Your task to perform on an android device: install app "PlayWell" Image 0: 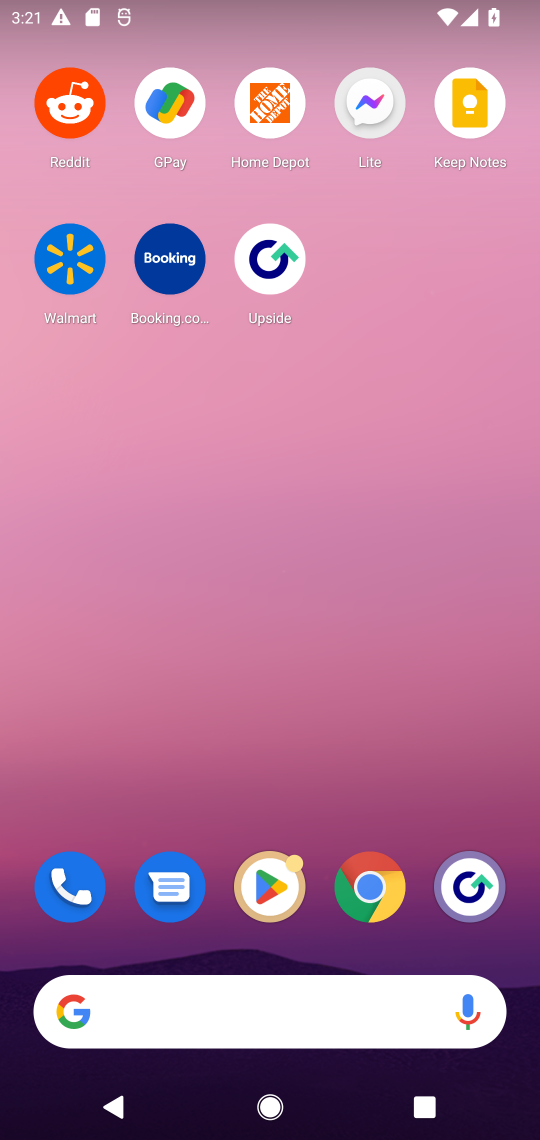
Step 0: press home button
Your task to perform on an android device: install app "PlayWell" Image 1: 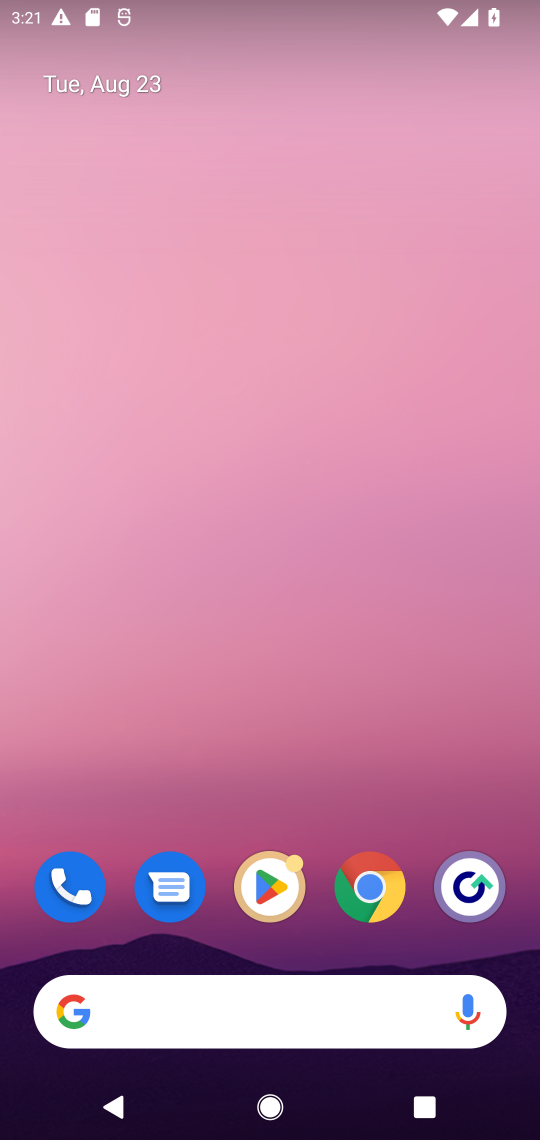
Step 1: click (280, 877)
Your task to perform on an android device: install app "PlayWell" Image 2: 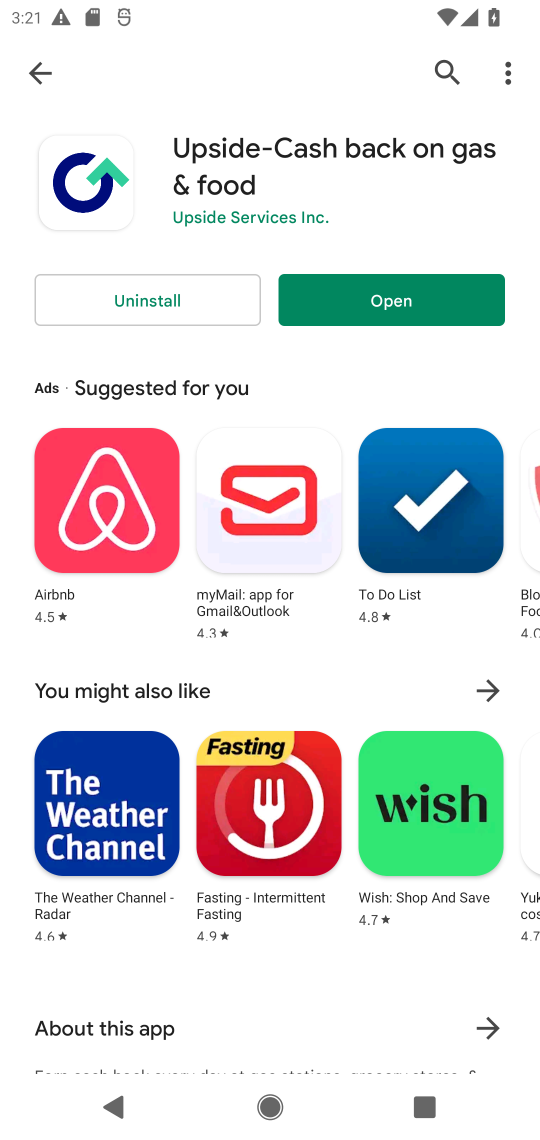
Step 2: click (31, 74)
Your task to perform on an android device: install app "PlayWell" Image 3: 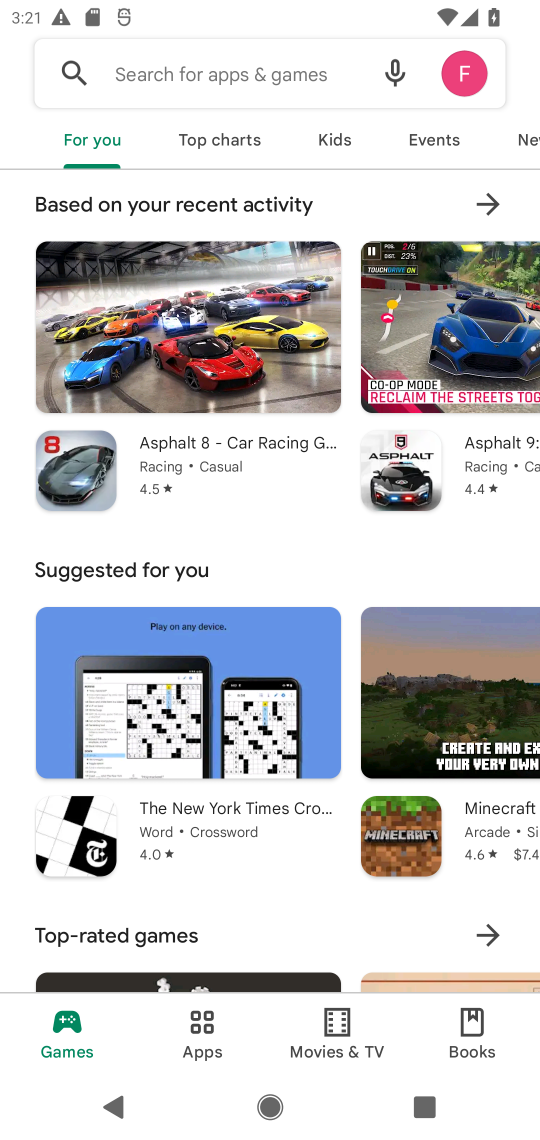
Step 3: click (184, 67)
Your task to perform on an android device: install app "PlayWell" Image 4: 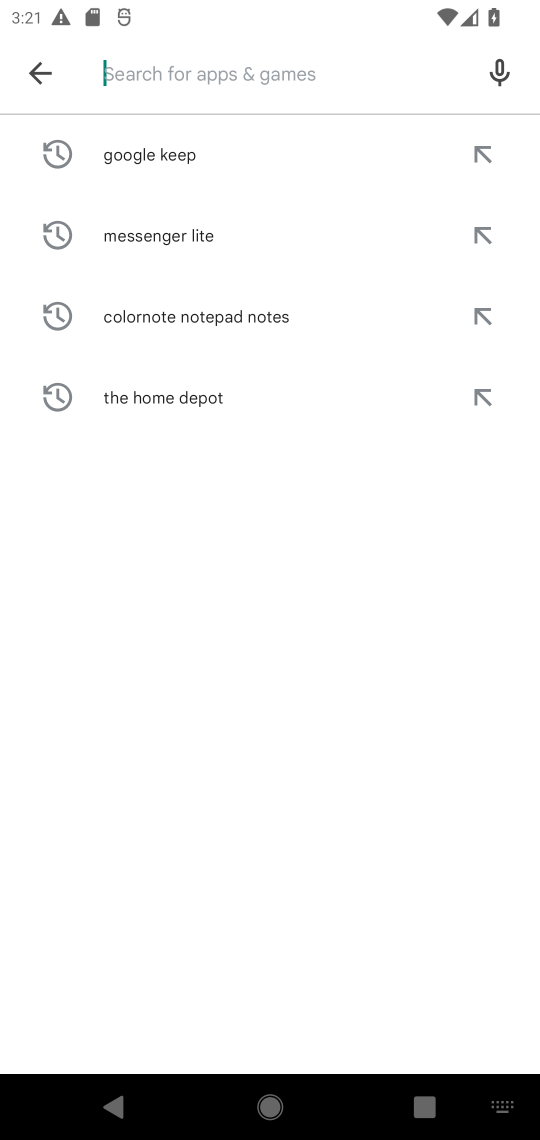
Step 4: type "PlayWell"
Your task to perform on an android device: install app "PlayWell" Image 5: 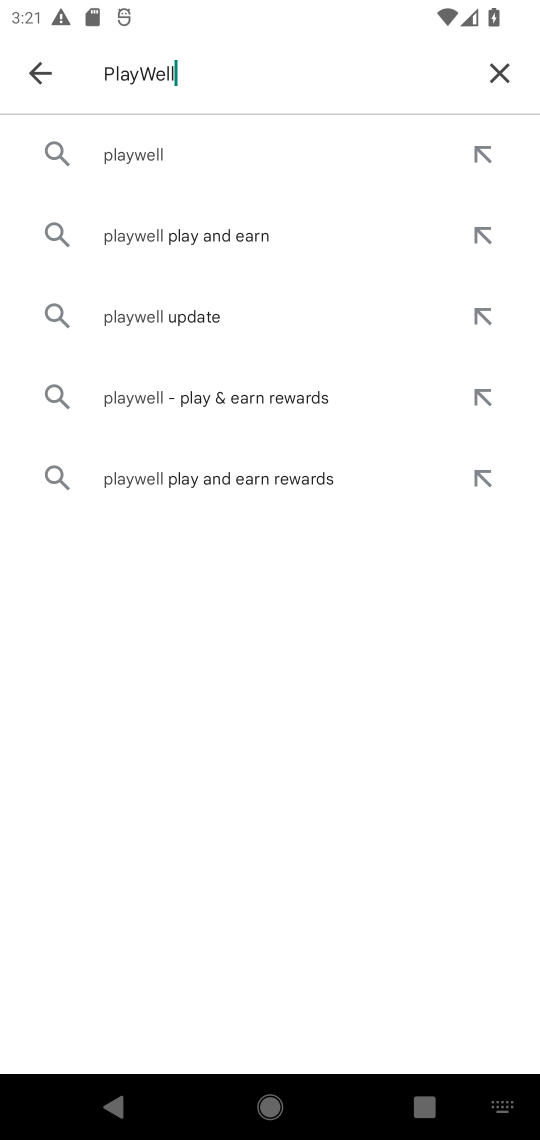
Step 5: click (141, 151)
Your task to perform on an android device: install app "PlayWell" Image 6: 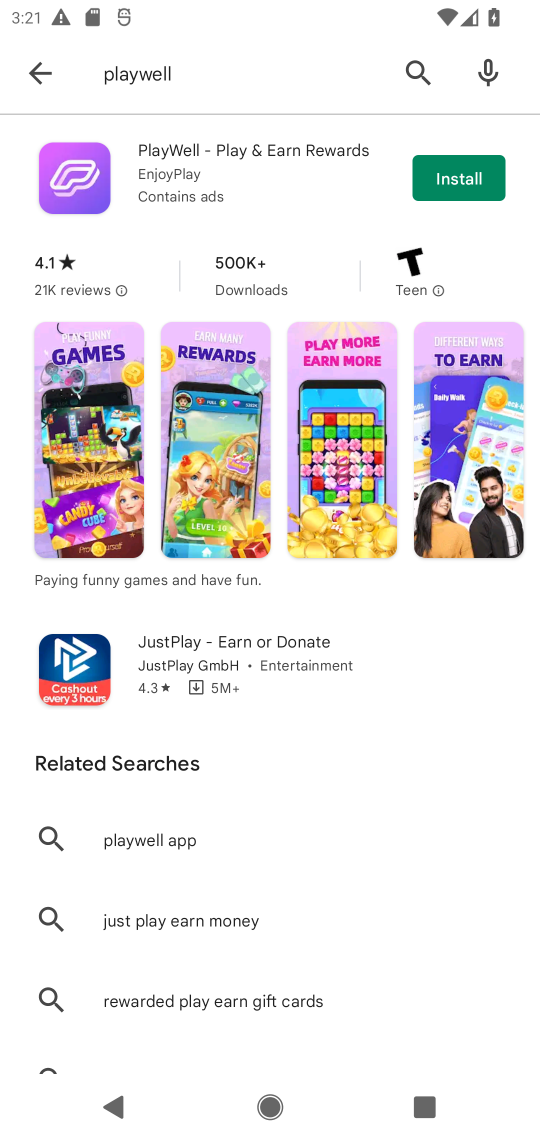
Step 6: click (457, 181)
Your task to perform on an android device: install app "PlayWell" Image 7: 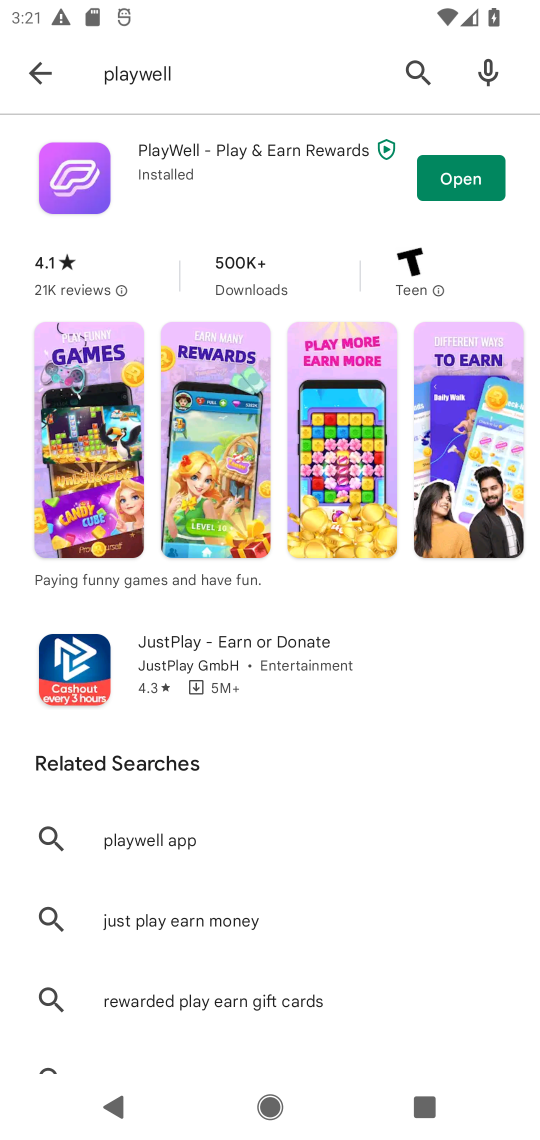
Step 7: click (457, 181)
Your task to perform on an android device: install app "PlayWell" Image 8: 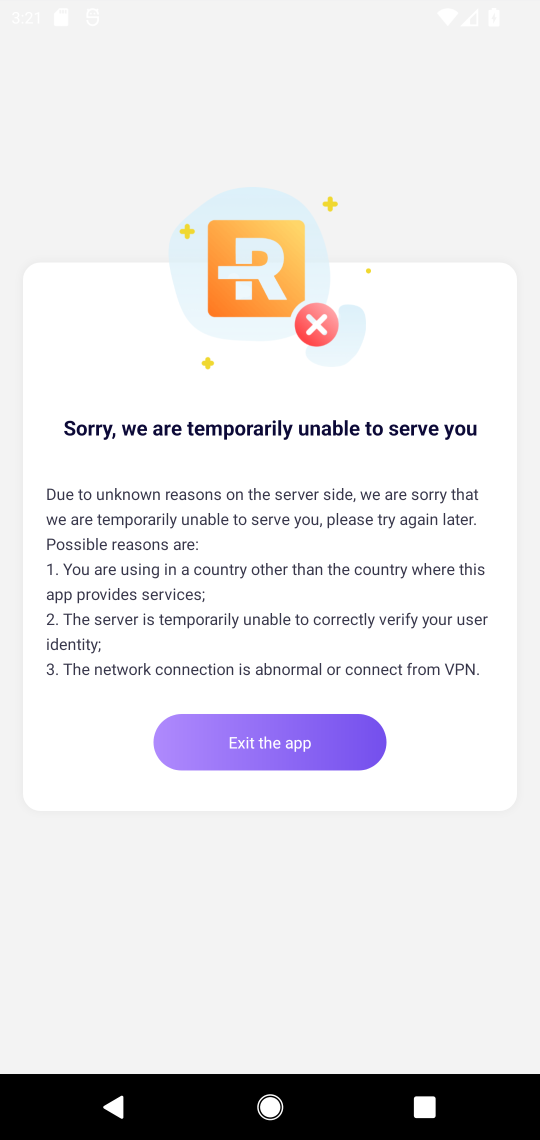
Step 8: task complete